Your task to perform on an android device: turn on wifi Image 0: 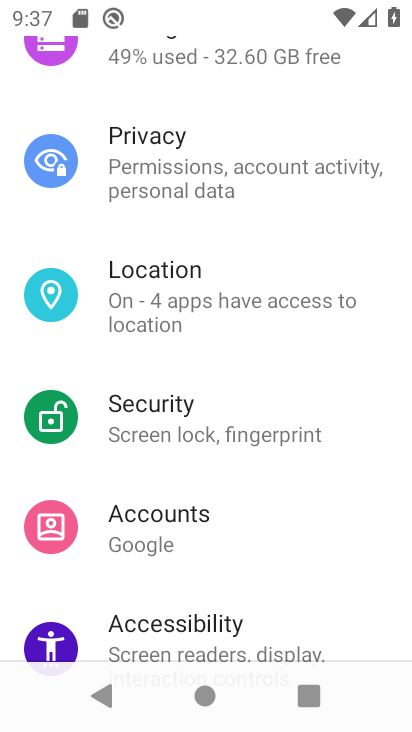
Step 0: press home button
Your task to perform on an android device: turn on wifi Image 1: 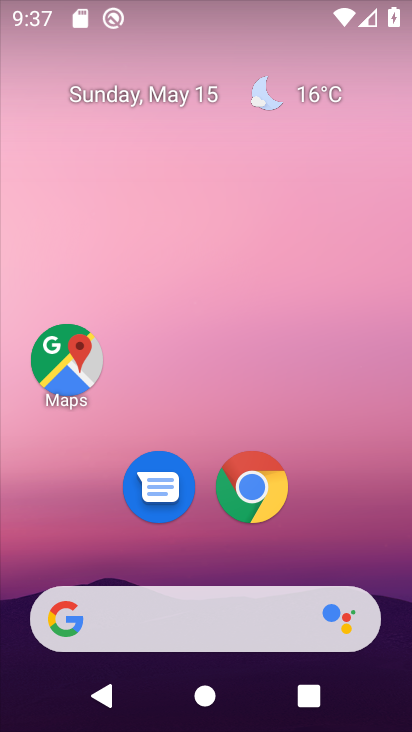
Step 1: drag from (361, 543) to (348, 91)
Your task to perform on an android device: turn on wifi Image 2: 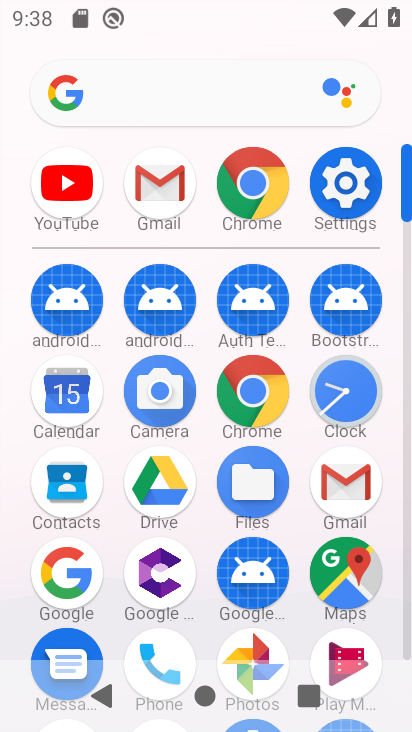
Step 2: click (363, 199)
Your task to perform on an android device: turn on wifi Image 3: 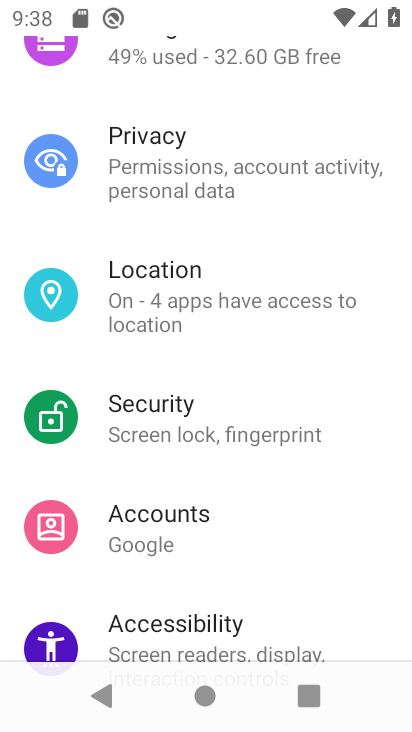
Step 3: drag from (291, 549) to (311, 219)
Your task to perform on an android device: turn on wifi Image 4: 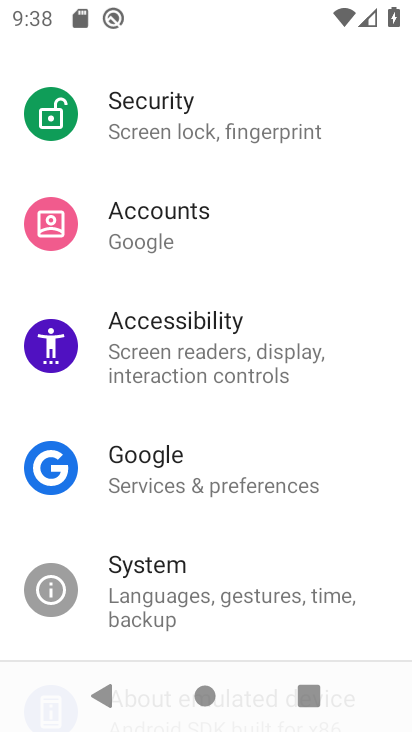
Step 4: drag from (328, 200) to (349, 536)
Your task to perform on an android device: turn on wifi Image 5: 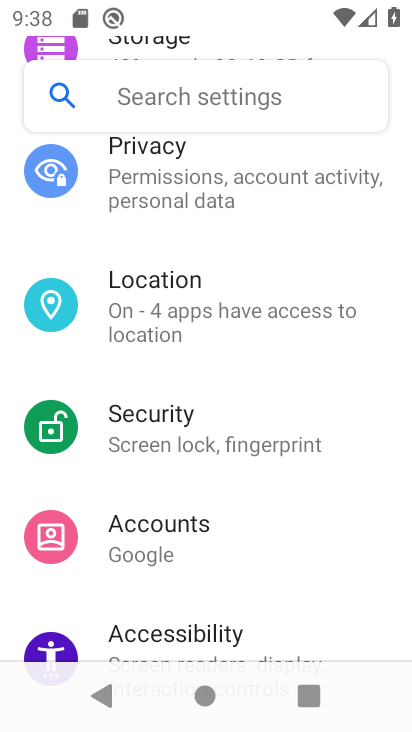
Step 5: drag from (321, 232) to (230, 626)
Your task to perform on an android device: turn on wifi Image 6: 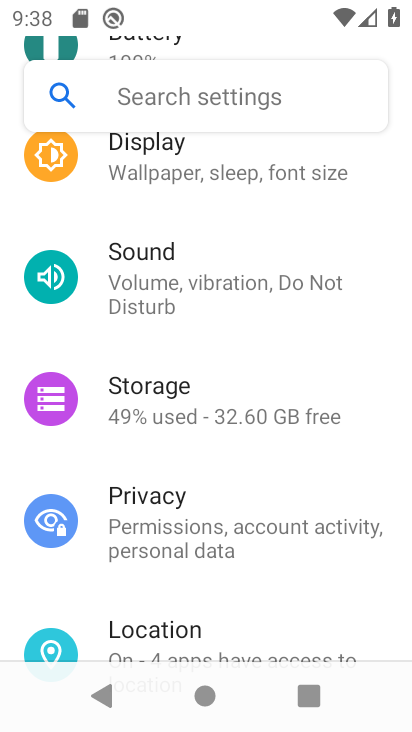
Step 6: drag from (240, 203) to (242, 582)
Your task to perform on an android device: turn on wifi Image 7: 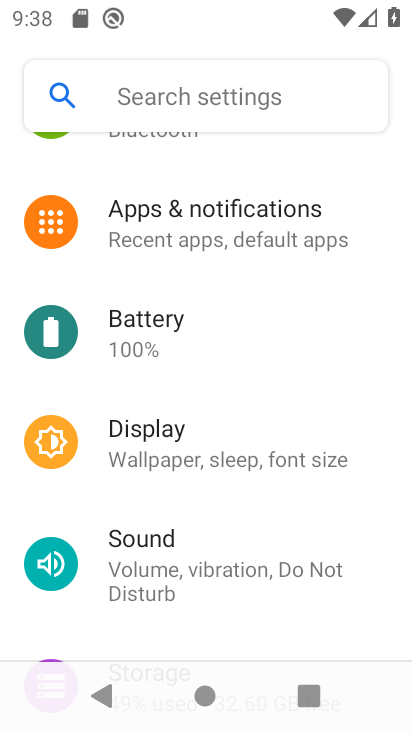
Step 7: drag from (215, 274) to (260, 623)
Your task to perform on an android device: turn on wifi Image 8: 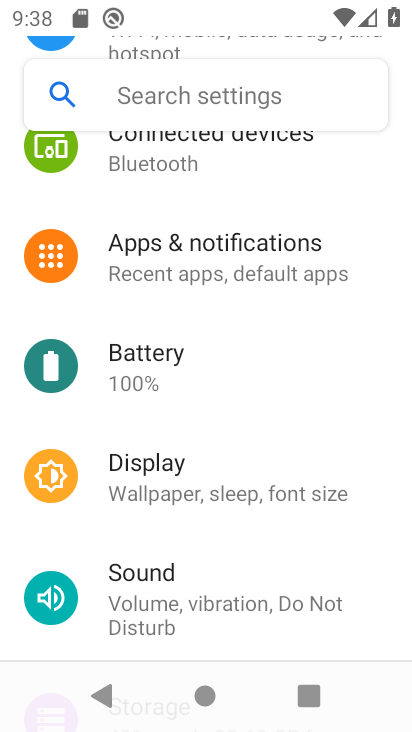
Step 8: drag from (272, 498) to (298, 582)
Your task to perform on an android device: turn on wifi Image 9: 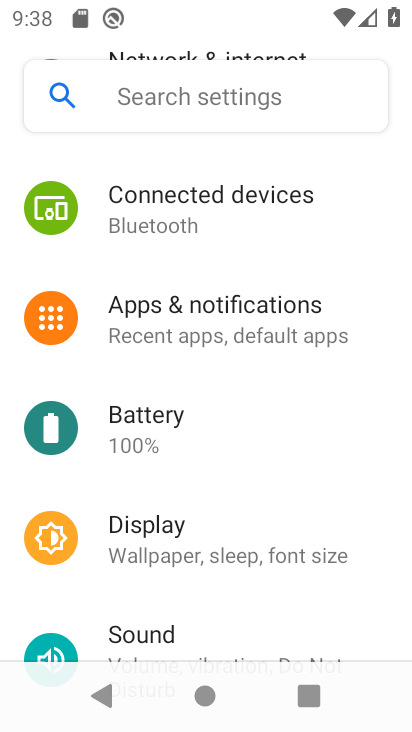
Step 9: drag from (274, 169) to (315, 627)
Your task to perform on an android device: turn on wifi Image 10: 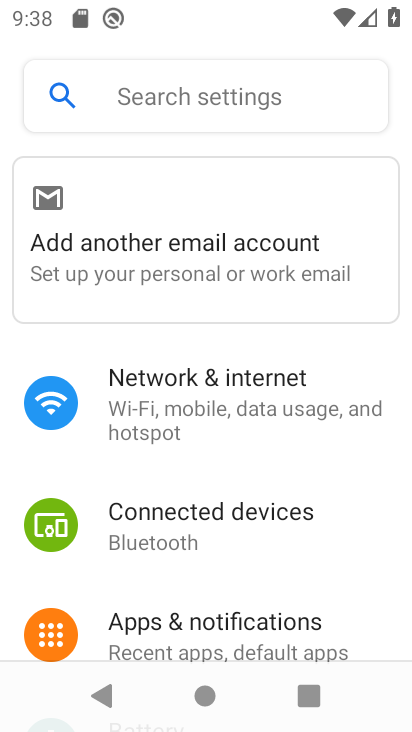
Step 10: click (261, 406)
Your task to perform on an android device: turn on wifi Image 11: 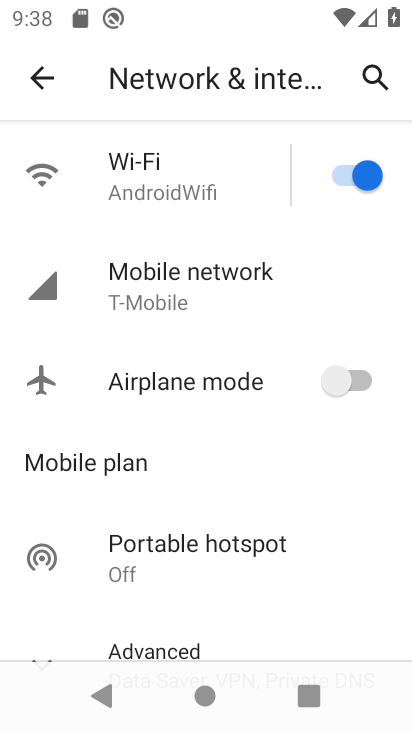
Step 11: task complete